Your task to perform on an android device: manage bookmarks in the chrome app Image 0: 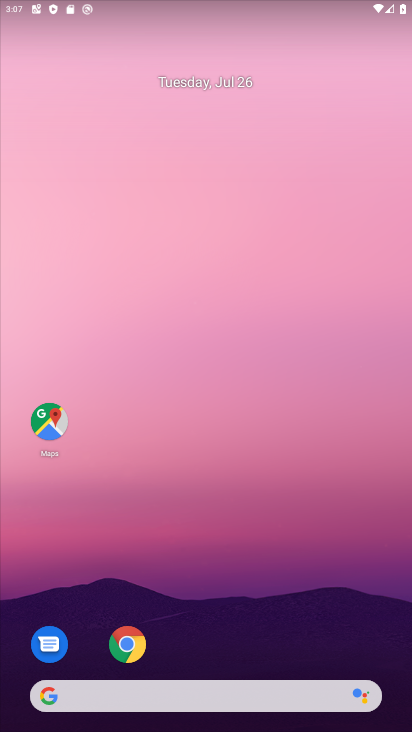
Step 0: click (207, 278)
Your task to perform on an android device: manage bookmarks in the chrome app Image 1: 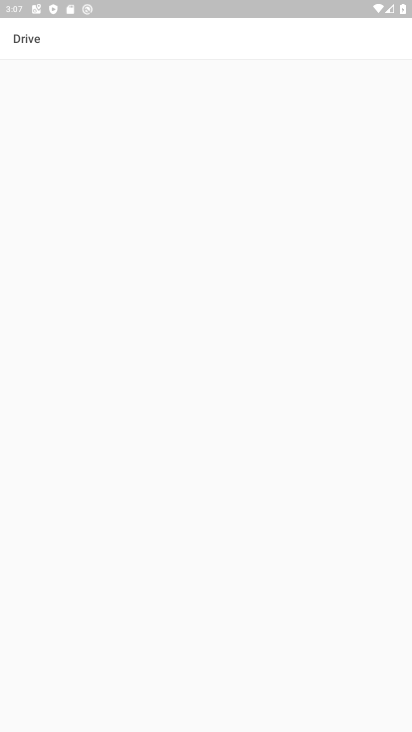
Step 1: press home button
Your task to perform on an android device: manage bookmarks in the chrome app Image 2: 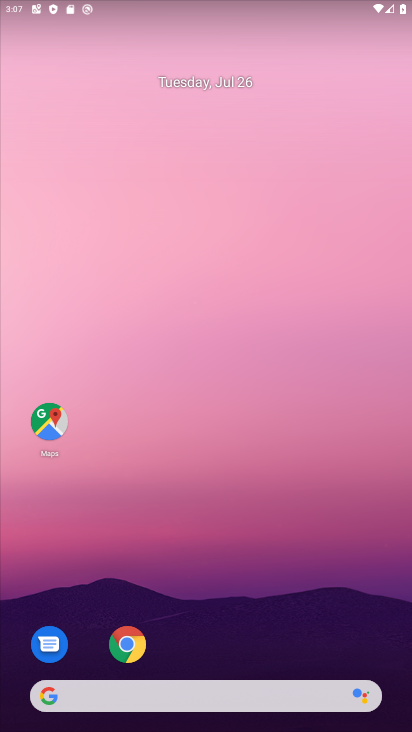
Step 2: drag from (202, 687) to (201, 257)
Your task to perform on an android device: manage bookmarks in the chrome app Image 3: 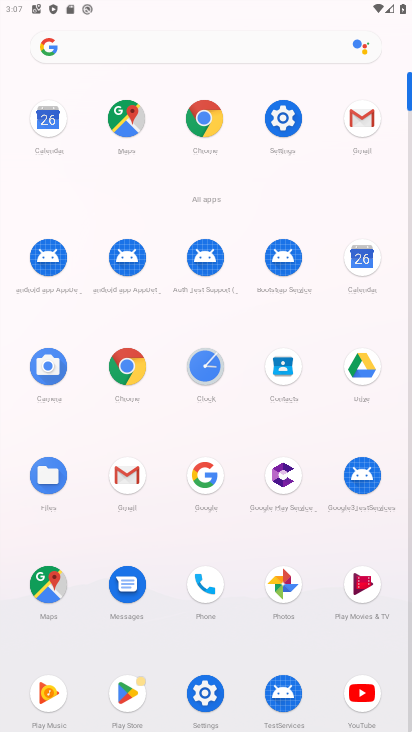
Step 3: click (206, 115)
Your task to perform on an android device: manage bookmarks in the chrome app Image 4: 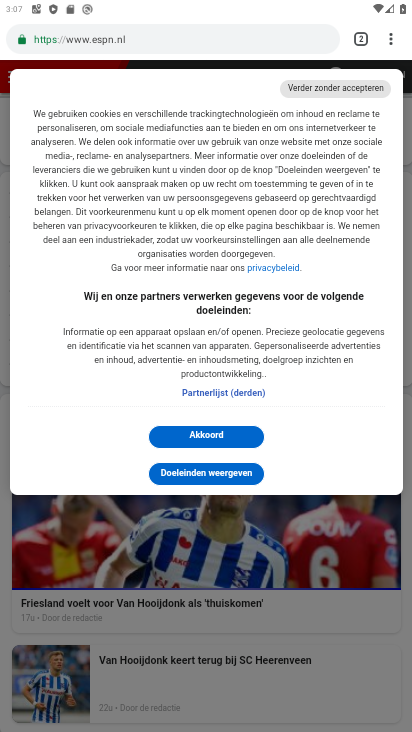
Step 4: click (393, 39)
Your task to perform on an android device: manage bookmarks in the chrome app Image 5: 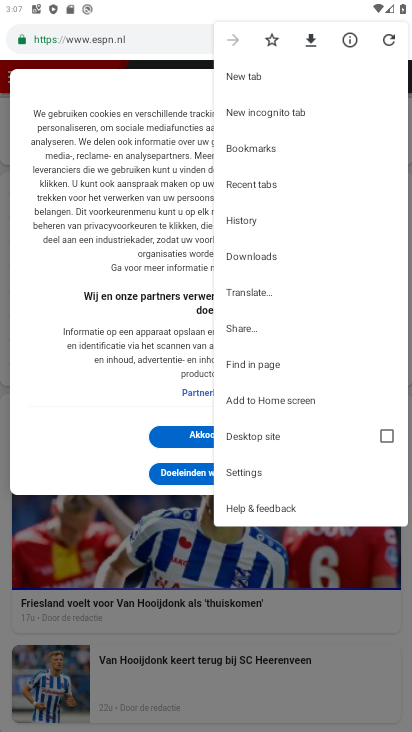
Step 5: click (254, 141)
Your task to perform on an android device: manage bookmarks in the chrome app Image 6: 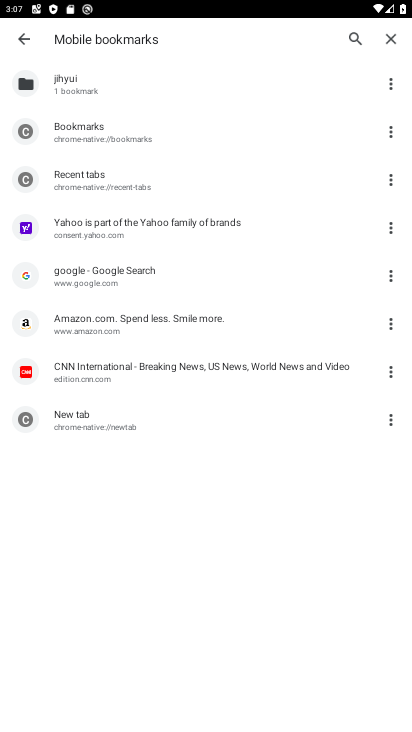
Step 6: click (387, 420)
Your task to perform on an android device: manage bookmarks in the chrome app Image 7: 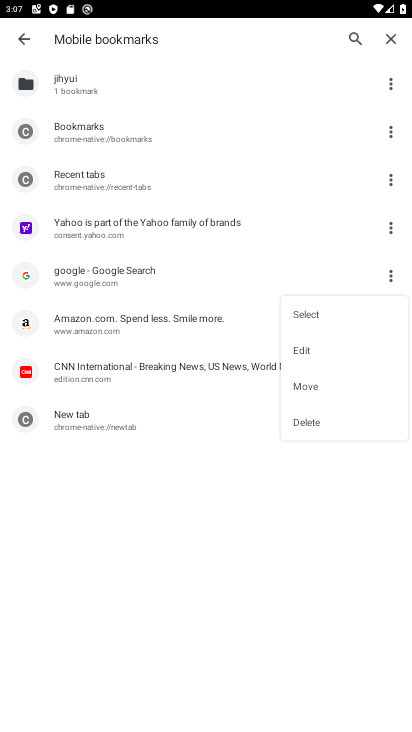
Step 7: click (301, 418)
Your task to perform on an android device: manage bookmarks in the chrome app Image 8: 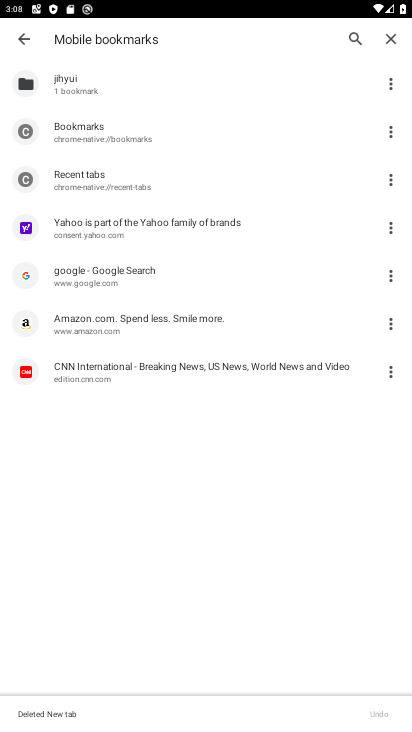
Step 8: task complete